Your task to perform on an android device: Show me popular videos on Youtube Image 0: 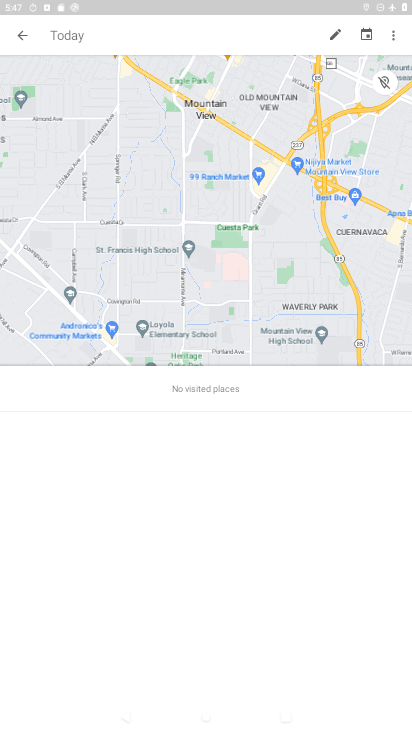
Step 0: press home button
Your task to perform on an android device: Show me popular videos on Youtube Image 1: 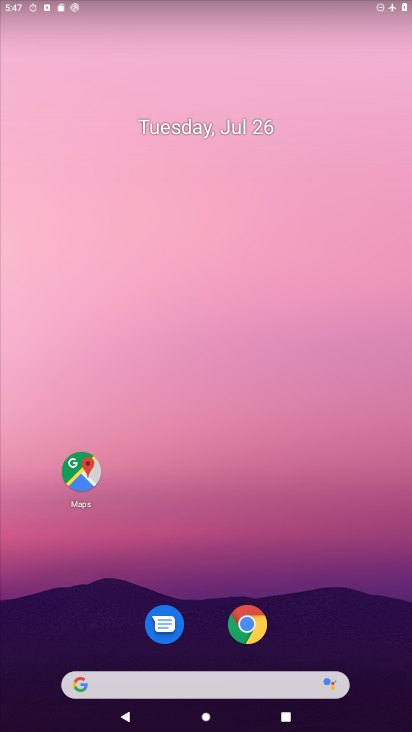
Step 1: drag from (164, 672) to (244, 0)
Your task to perform on an android device: Show me popular videos on Youtube Image 2: 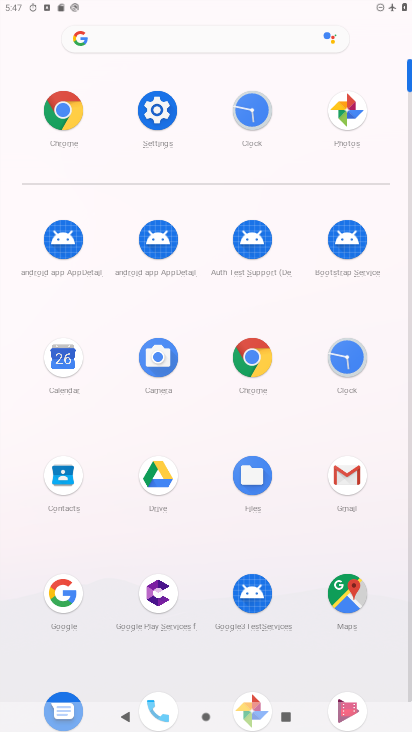
Step 2: drag from (319, 663) to (295, 341)
Your task to perform on an android device: Show me popular videos on Youtube Image 3: 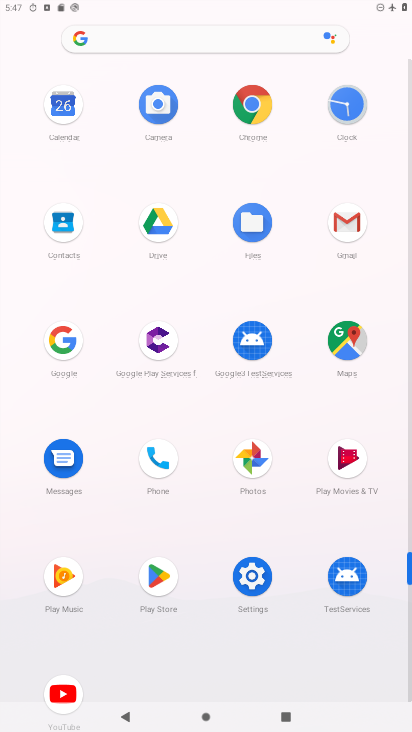
Step 3: click (64, 686)
Your task to perform on an android device: Show me popular videos on Youtube Image 4: 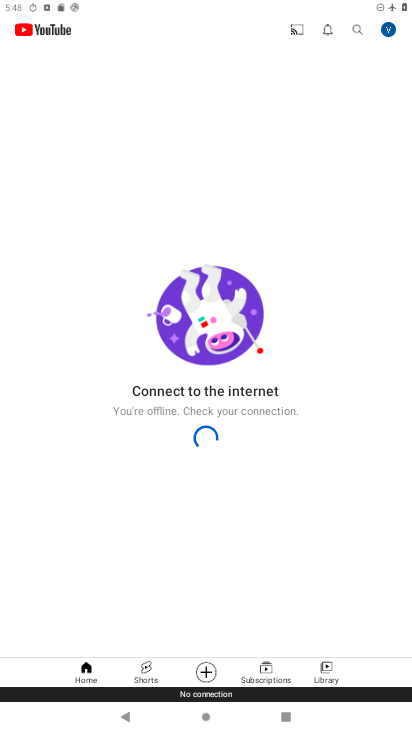
Step 4: task complete